Your task to perform on an android device: turn vacation reply on in the gmail app Image 0: 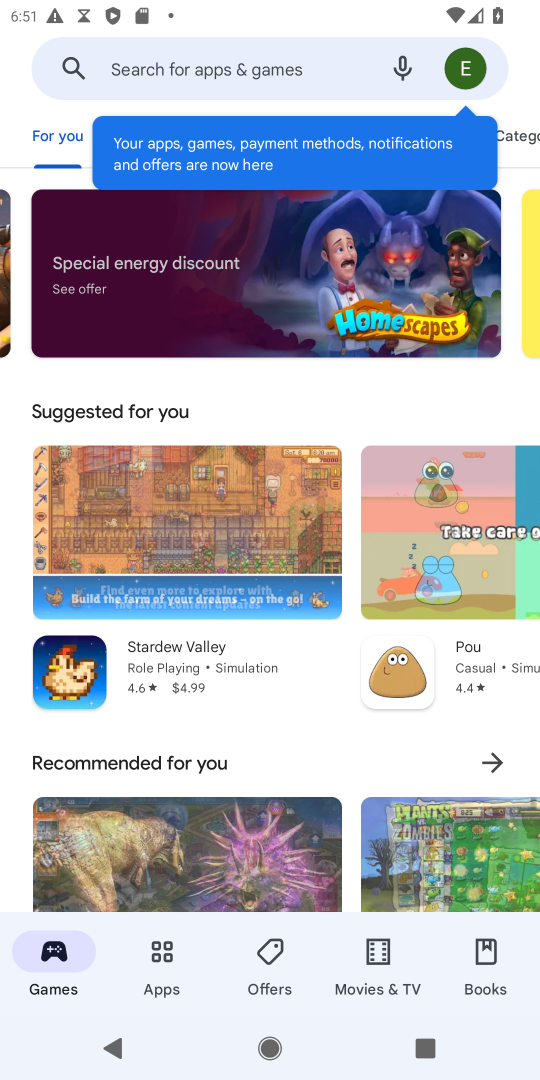
Step 0: press home button
Your task to perform on an android device: turn vacation reply on in the gmail app Image 1: 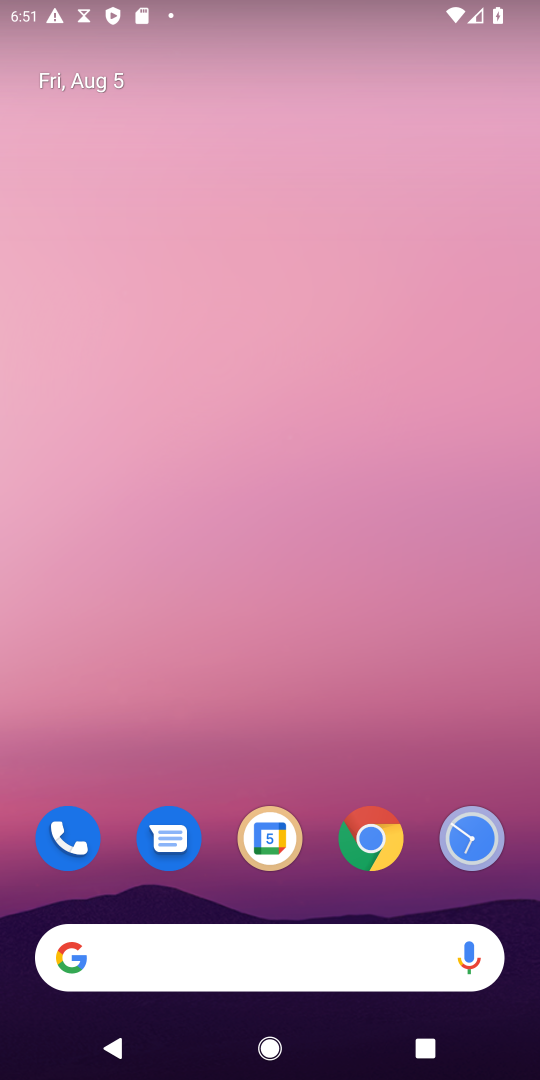
Step 1: drag from (333, 902) to (320, 123)
Your task to perform on an android device: turn vacation reply on in the gmail app Image 2: 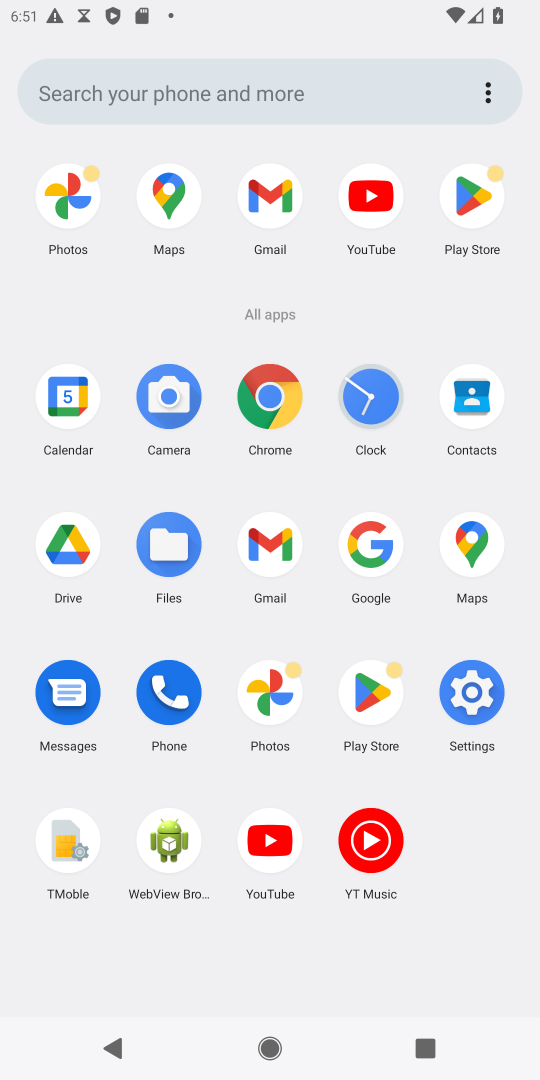
Step 2: click (267, 542)
Your task to perform on an android device: turn vacation reply on in the gmail app Image 3: 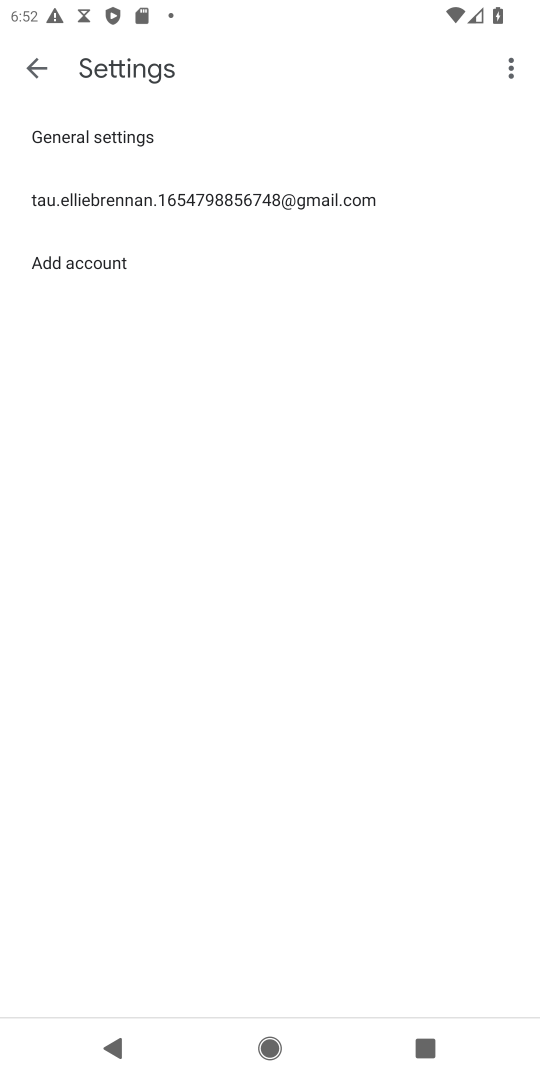
Step 3: click (177, 212)
Your task to perform on an android device: turn vacation reply on in the gmail app Image 4: 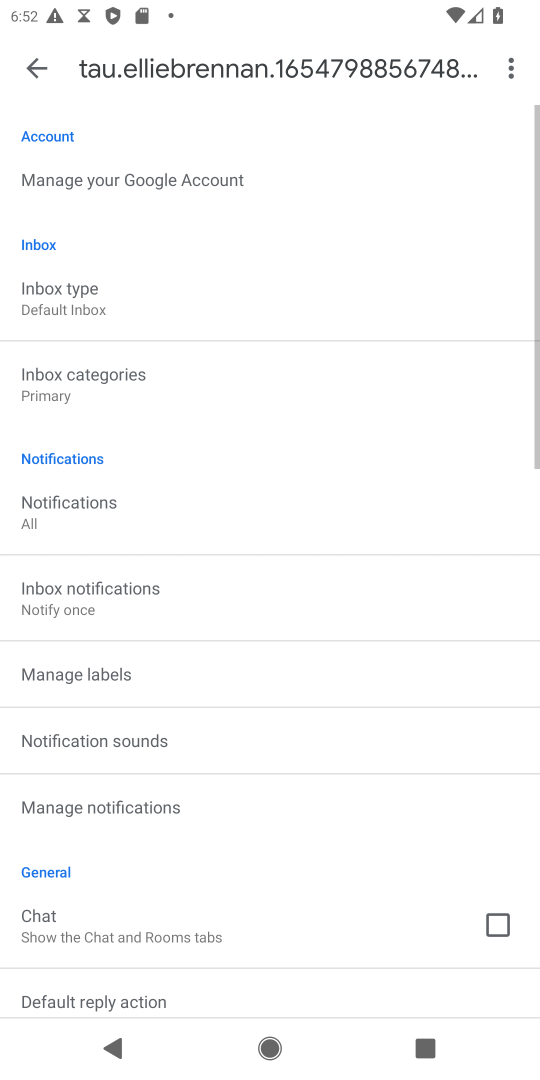
Step 4: drag from (372, 809) to (331, 147)
Your task to perform on an android device: turn vacation reply on in the gmail app Image 5: 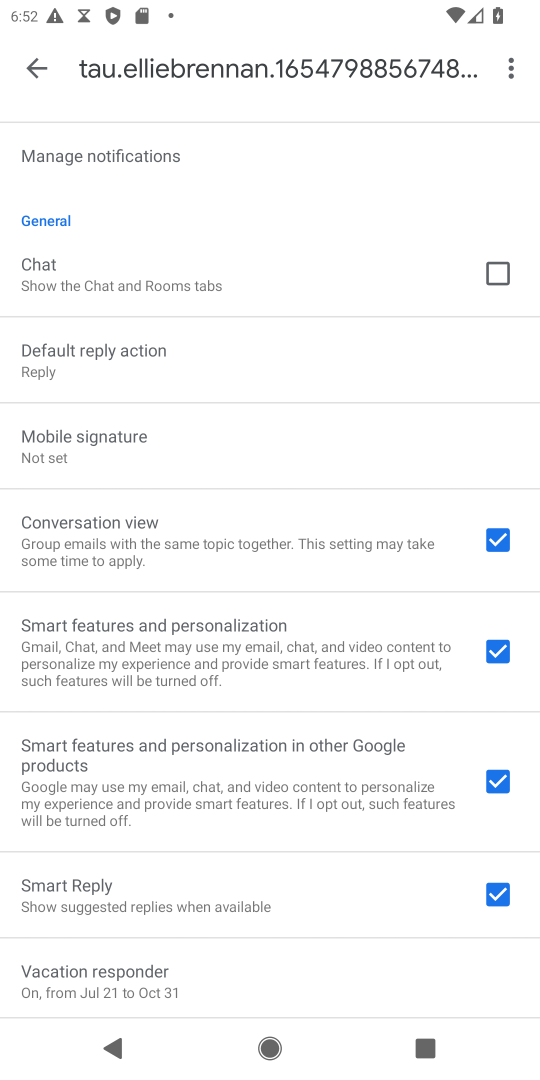
Step 5: click (91, 980)
Your task to perform on an android device: turn vacation reply on in the gmail app Image 6: 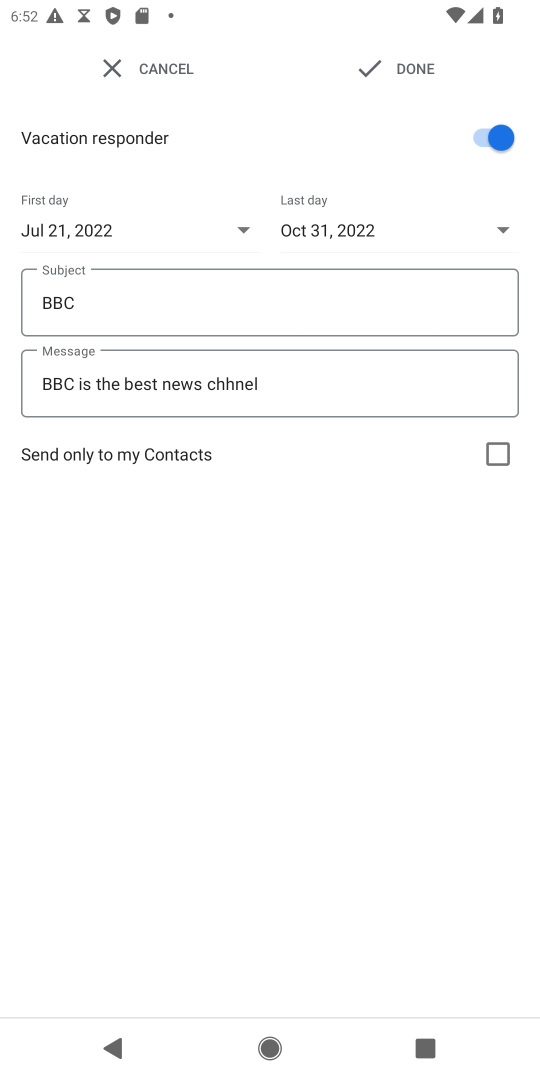
Step 6: task complete